Your task to perform on an android device: see tabs open on other devices in the chrome app Image 0: 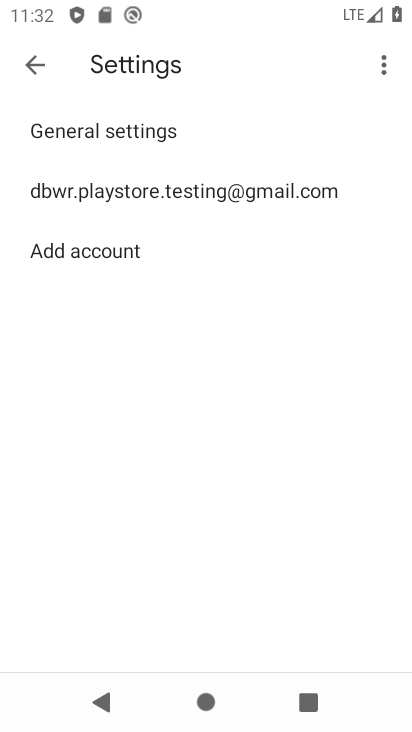
Step 0: press home button
Your task to perform on an android device: see tabs open on other devices in the chrome app Image 1: 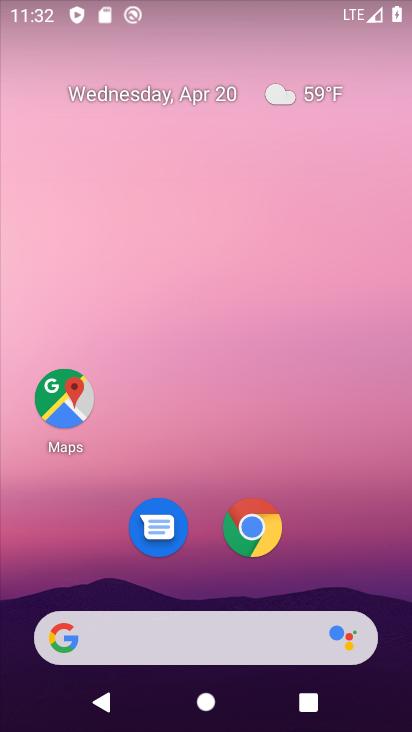
Step 1: drag from (376, 552) to (376, 166)
Your task to perform on an android device: see tabs open on other devices in the chrome app Image 2: 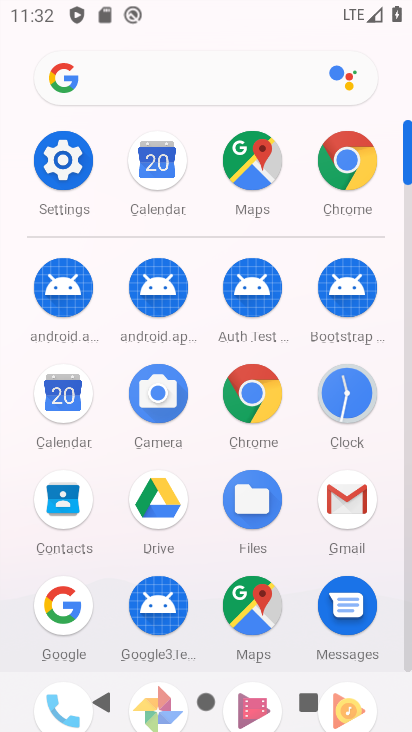
Step 2: click (270, 399)
Your task to perform on an android device: see tabs open on other devices in the chrome app Image 3: 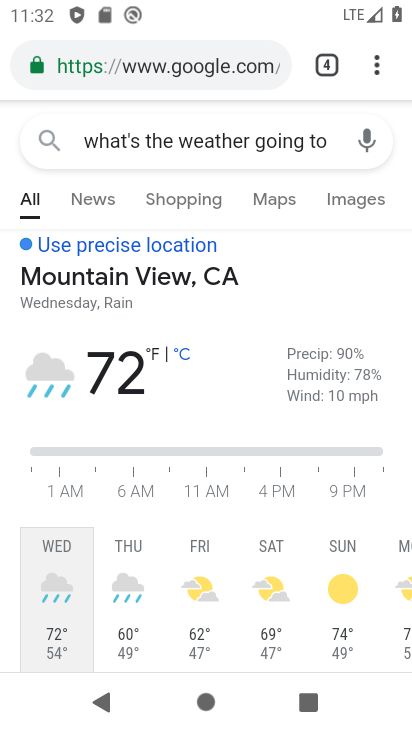
Step 3: click (332, 73)
Your task to perform on an android device: see tabs open on other devices in the chrome app Image 4: 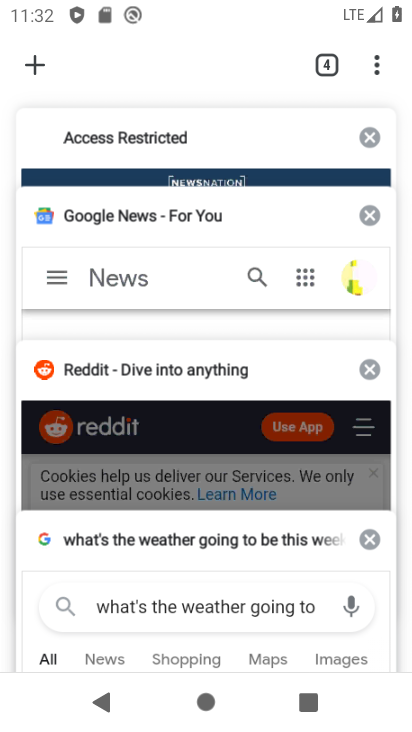
Step 4: task complete